Your task to perform on an android device: Go to ESPN.com Image 0: 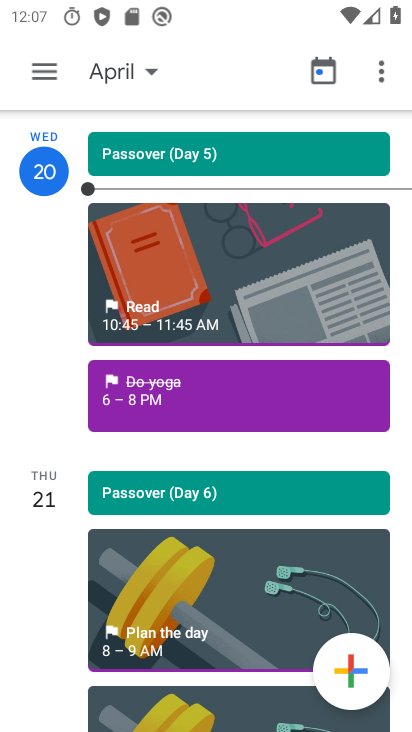
Step 0: press home button
Your task to perform on an android device: Go to ESPN.com Image 1: 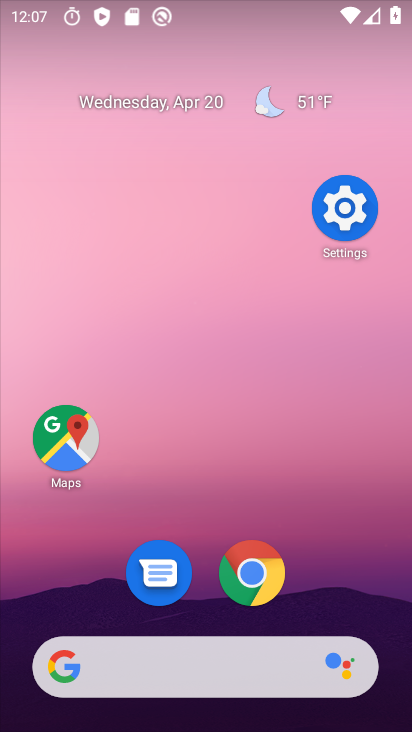
Step 1: click (260, 594)
Your task to perform on an android device: Go to ESPN.com Image 2: 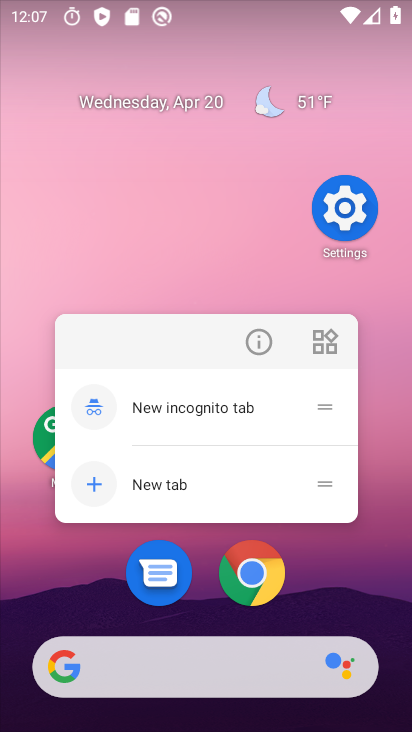
Step 2: click (249, 569)
Your task to perform on an android device: Go to ESPN.com Image 3: 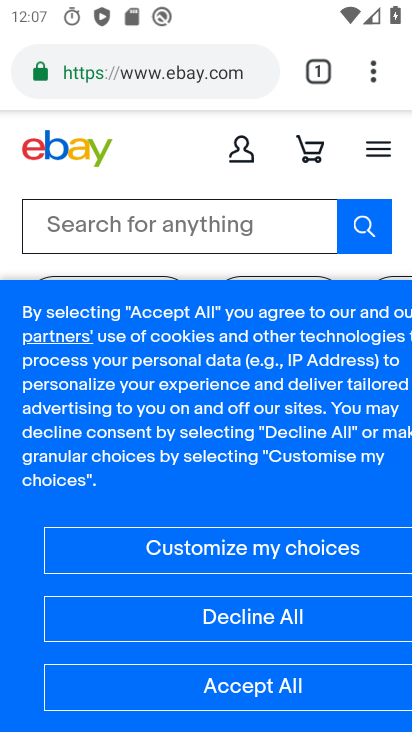
Step 3: click (141, 78)
Your task to perform on an android device: Go to ESPN.com Image 4: 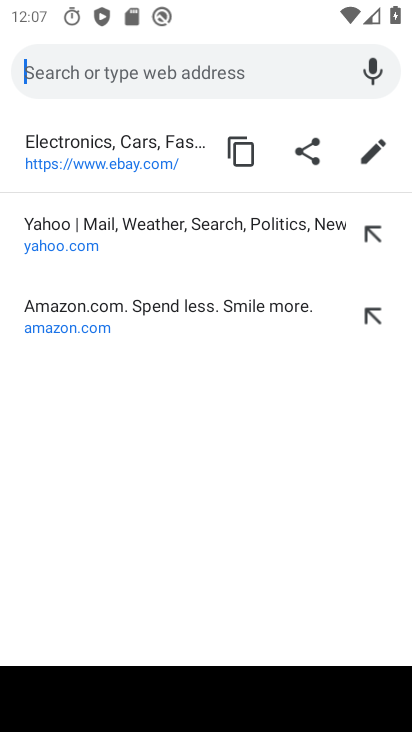
Step 4: type "ESPN.com"
Your task to perform on an android device: Go to ESPN.com Image 5: 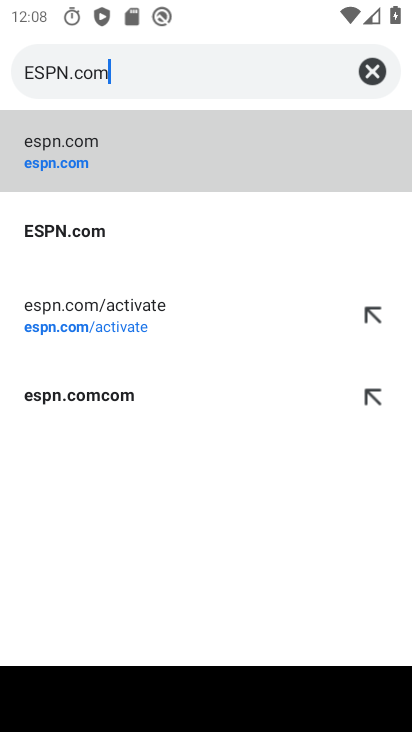
Step 5: click (59, 169)
Your task to perform on an android device: Go to ESPN.com Image 6: 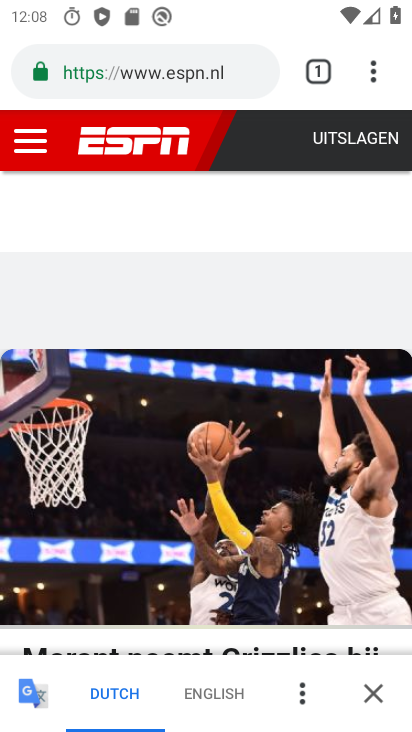
Step 6: task complete